Your task to perform on an android device: check google app version Image 0: 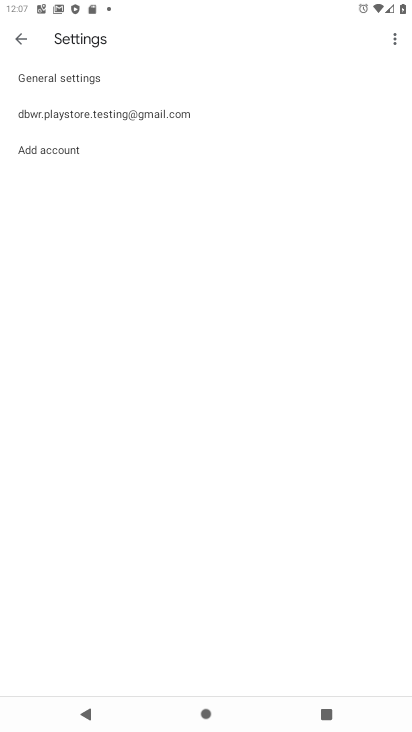
Step 0: press home button
Your task to perform on an android device: check google app version Image 1: 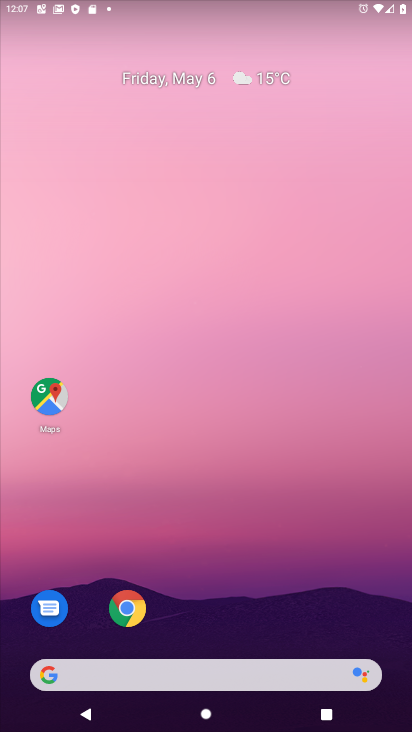
Step 1: drag from (222, 575) to (282, 133)
Your task to perform on an android device: check google app version Image 2: 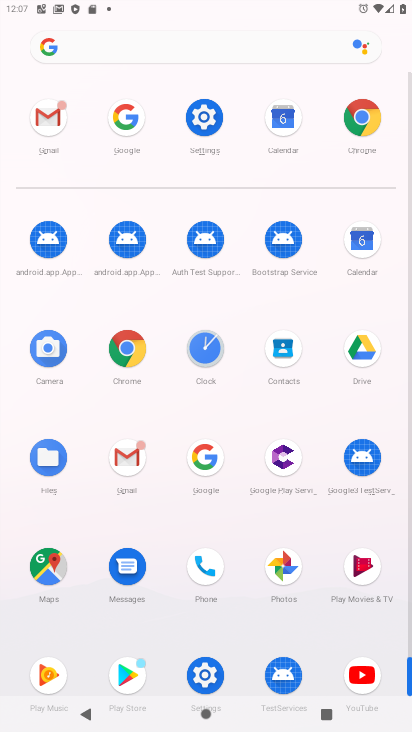
Step 2: click (207, 456)
Your task to perform on an android device: check google app version Image 3: 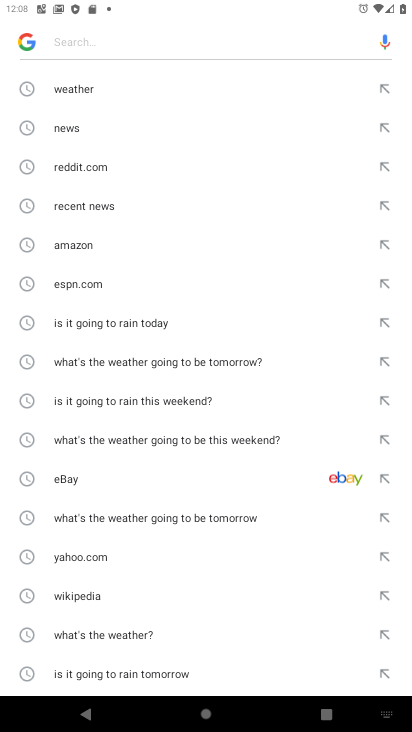
Step 3: press back button
Your task to perform on an android device: check google app version Image 4: 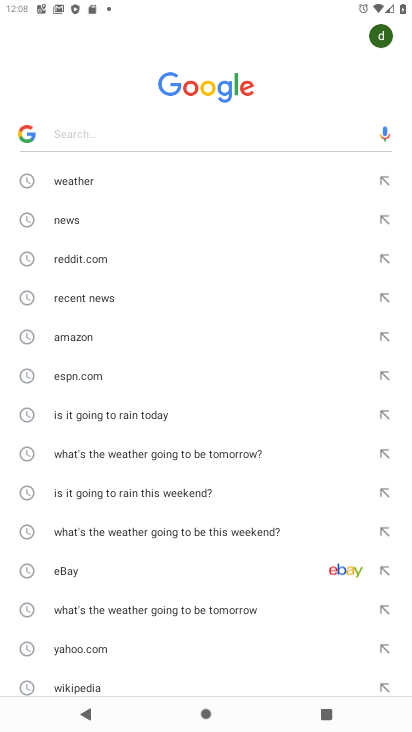
Step 4: click (384, 33)
Your task to perform on an android device: check google app version Image 5: 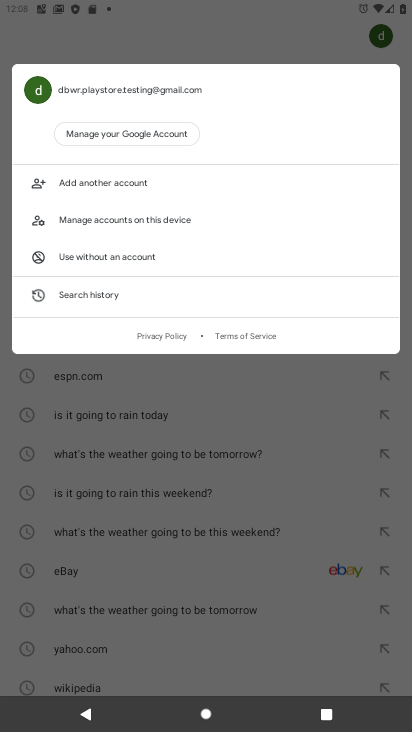
Step 5: press back button
Your task to perform on an android device: check google app version Image 6: 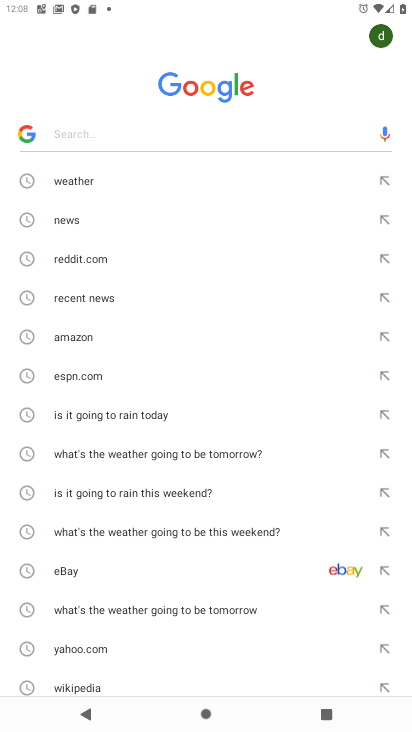
Step 6: drag from (275, 549) to (280, 74)
Your task to perform on an android device: check google app version Image 7: 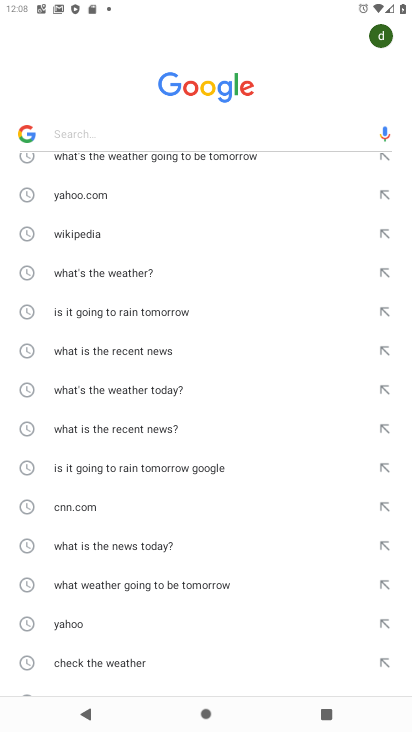
Step 7: press back button
Your task to perform on an android device: check google app version Image 8: 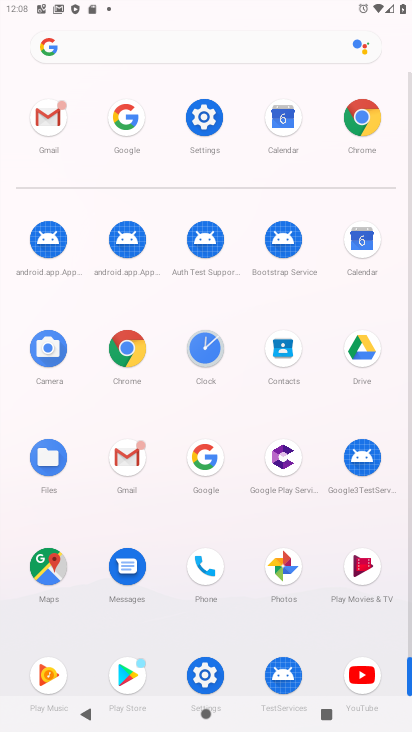
Step 8: click (210, 467)
Your task to perform on an android device: check google app version Image 9: 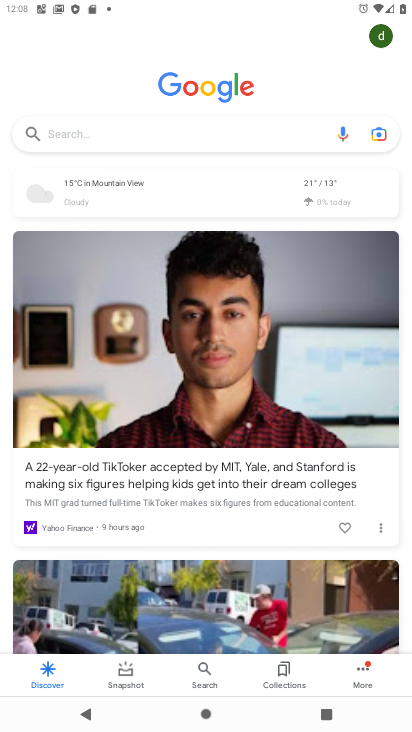
Step 9: click (359, 667)
Your task to perform on an android device: check google app version Image 10: 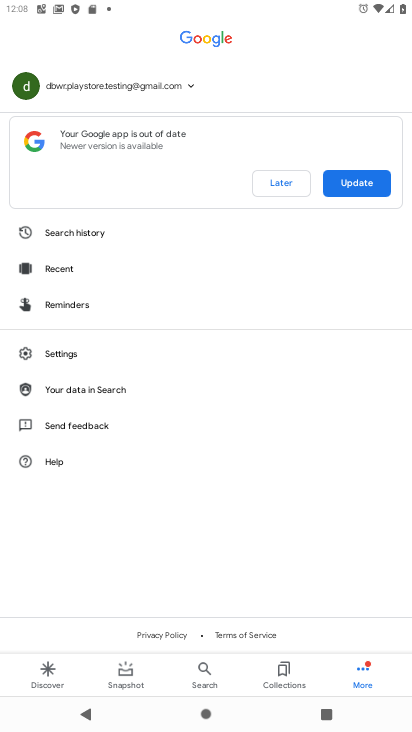
Step 10: click (104, 355)
Your task to perform on an android device: check google app version Image 11: 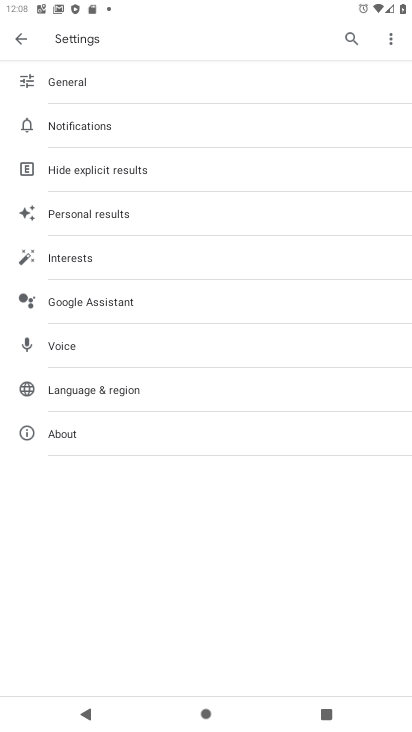
Step 11: click (102, 442)
Your task to perform on an android device: check google app version Image 12: 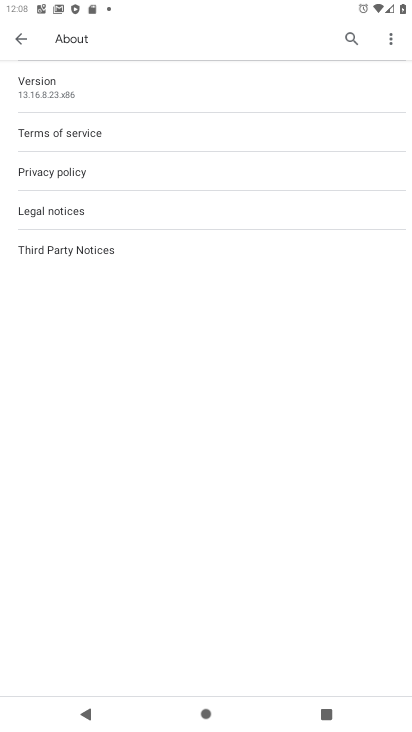
Step 12: task complete